Your task to perform on an android device: Search for sushi restaurants on Maps Image 0: 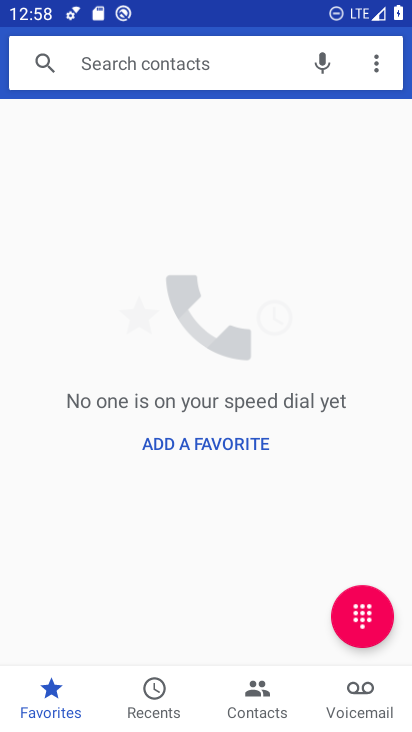
Step 0: press home button
Your task to perform on an android device: Search for sushi restaurants on Maps Image 1: 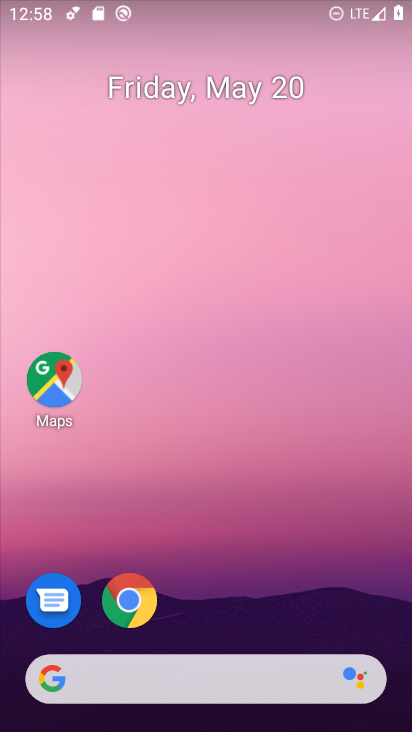
Step 1: click (64, 386)
Your task to perform on an android device: Search for sushi restaurants on Maps Image 2: 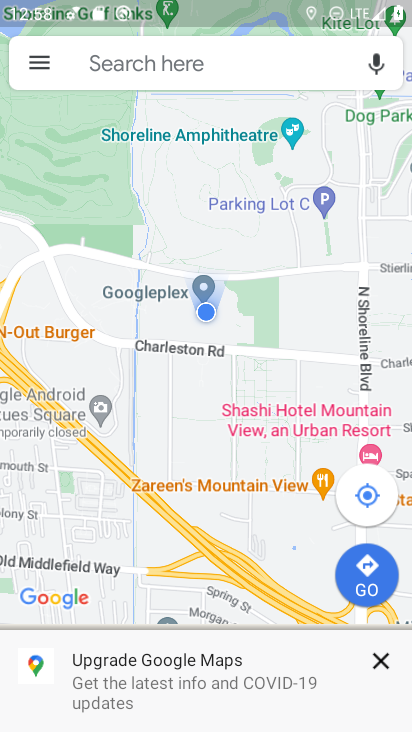
Step 2: click (204, 73)
Your task to perform on an android device: Search for sushi restaurants on Maps Image 3: 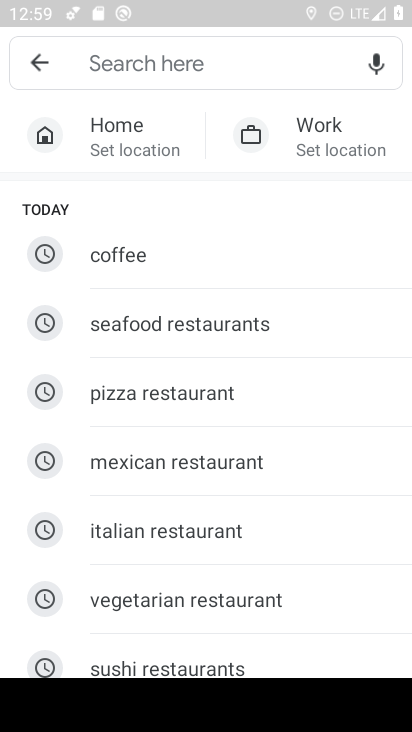
Step 3: click (175, 658)
Your task to perform on an android device: Search for sushi restaurants on Maps Image 4: 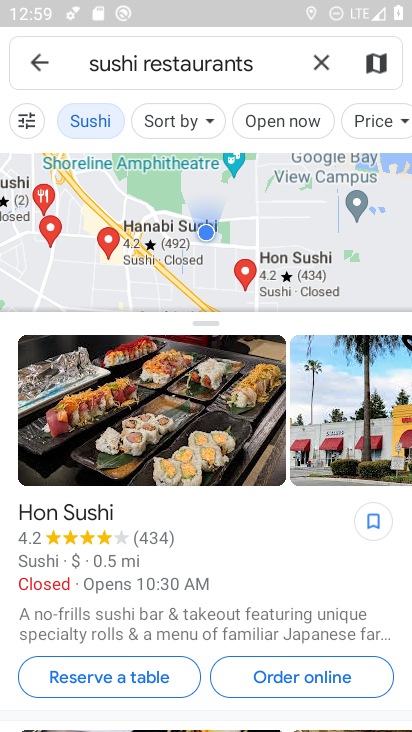
Step 4: task complete